Your task to perform on an android device: check battery use Image 0: 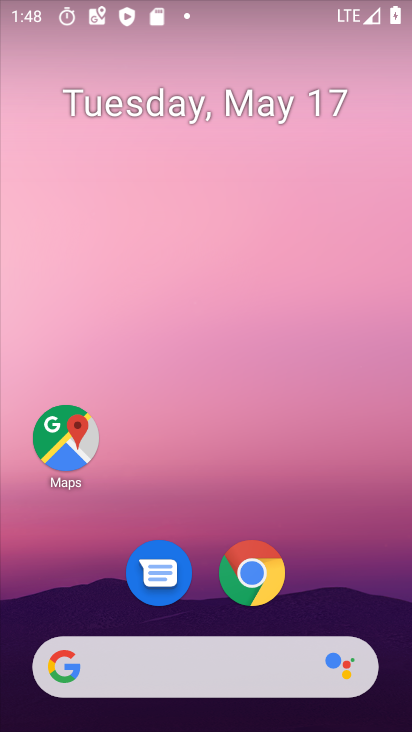
Step 0: drag from (226, 669) to (264, 90)
Your task to perform on an android device: check battery use Image 1: 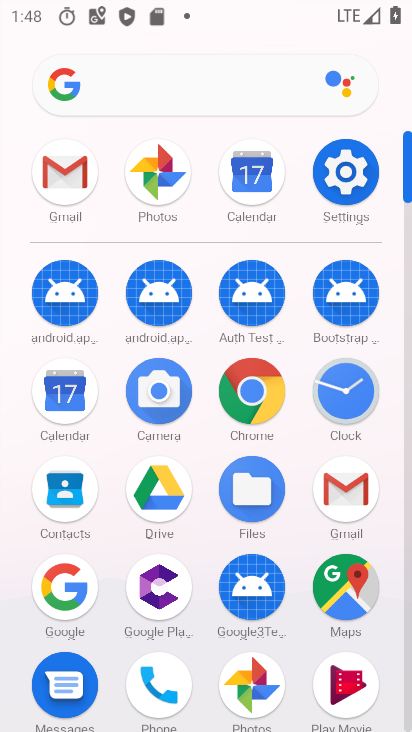
Step 1: click (358, 169)
Your task to perform on an android device: check battery use Image 2: 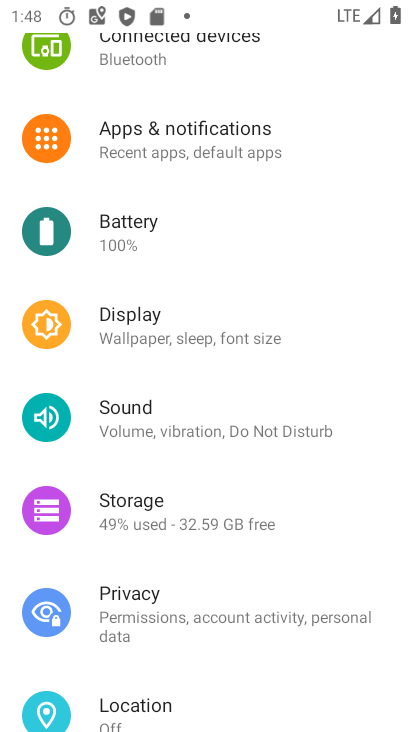
Step 2: drag from (378, 263) to (329, 521)
Your task to perform on an android device: check battery use Image 3: 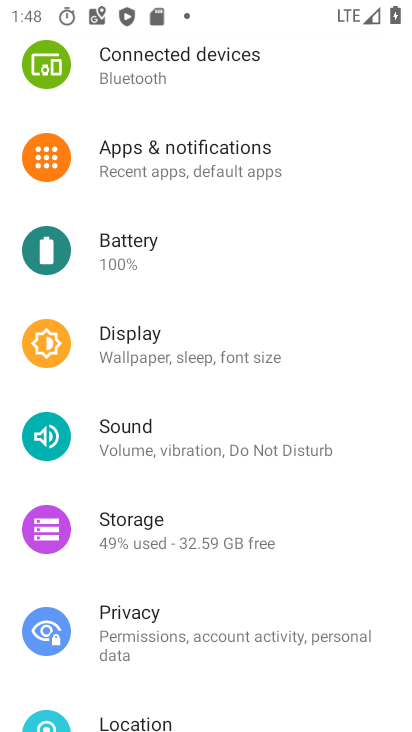
Step 3: click (162, 249)
Your task to perform on an android device: check battery use Image 4: 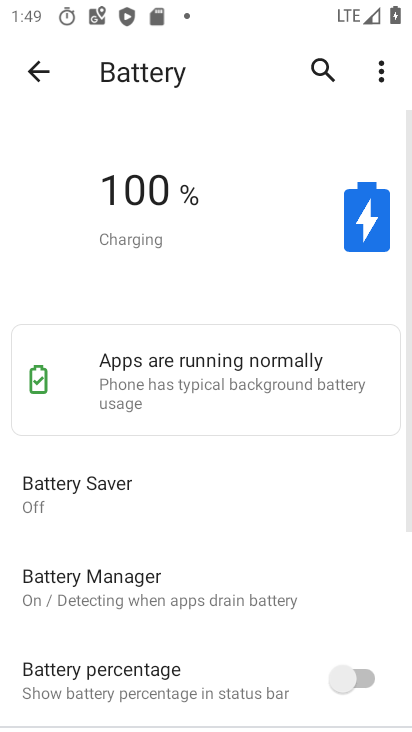
Step 4: click (383, 64)
Your task to perform on an android device: check battery use Image 5: 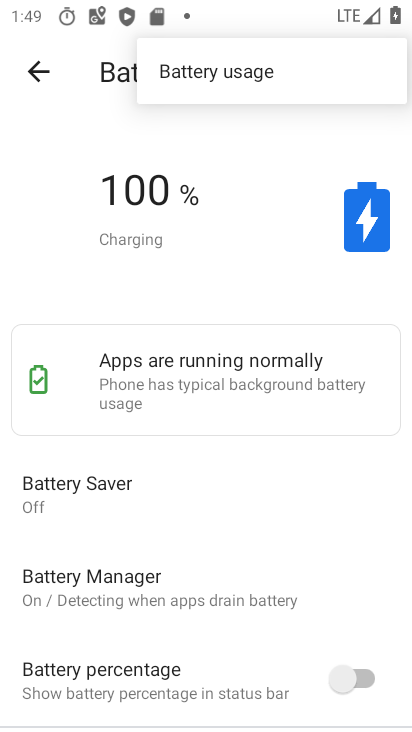
Step 5: click (308, 83)
Your task to perform on an android device: check battery use Image 6: 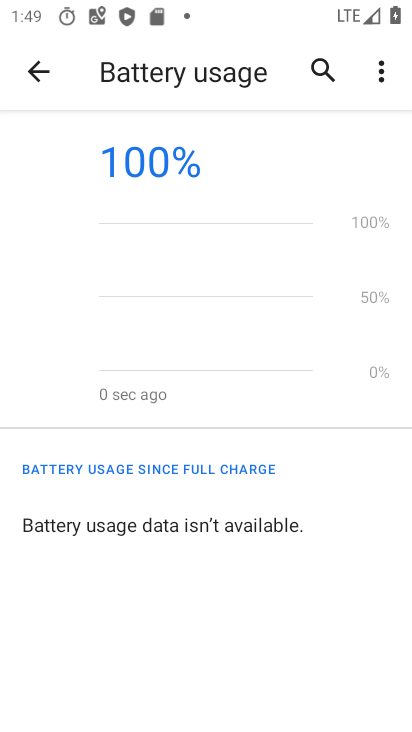
Step 6: task complete